Your task to perform on an android device: turn off notifications in google photos Image 0: 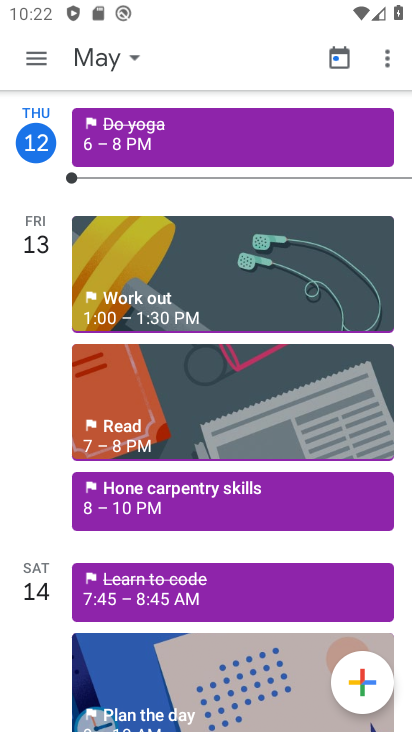
Step 0: press home button
Your task to perform on an android device: turn off notifications in google photos Image 1: 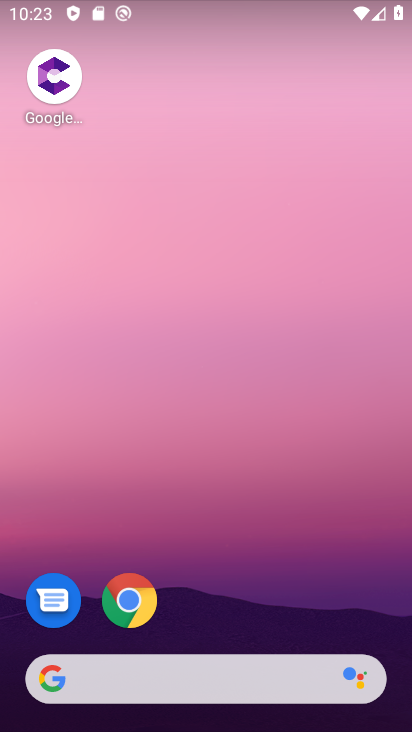
Step 1: click (265, 160)
Your task to perform on an android device: turn off notifications in google photos Image 2: 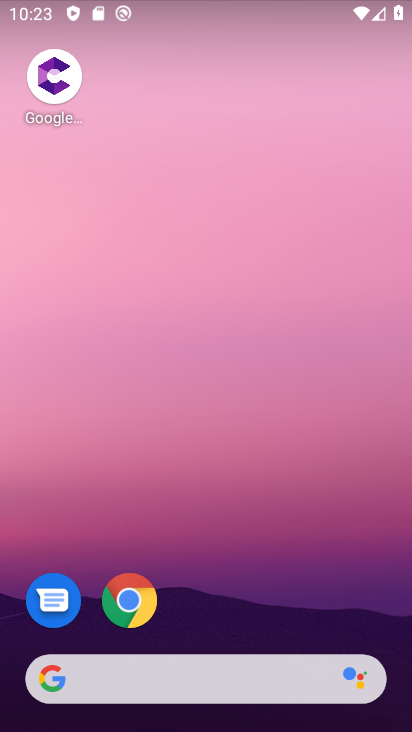
Step 2: drag from (200, 575) to (229, 146)
Your task to perform on an android device: turn off notifications in google photos Image 3: 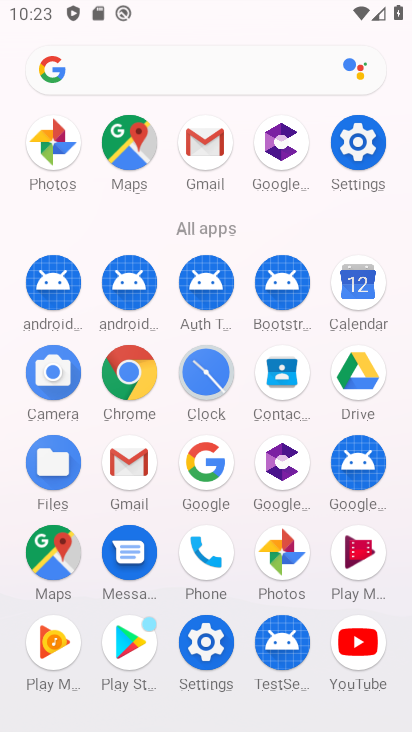
Step 3: click (289, 563)
Your task to perform on an android device: turn off notifications in google photos Image 4: 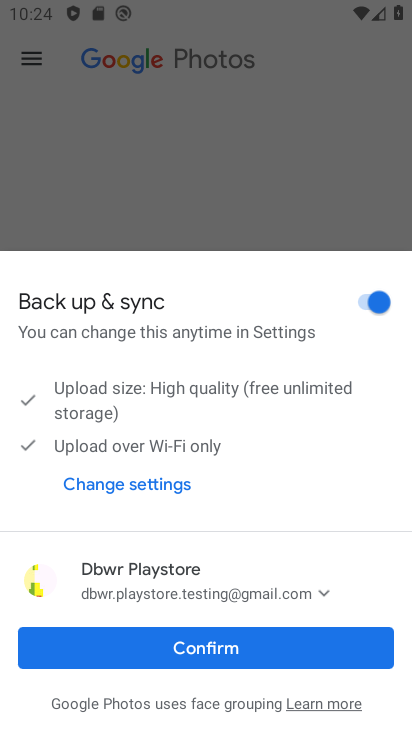
Step 4: click (184, 650)
Your task to perform on an android device: turn off notifications in google photos Image 5: 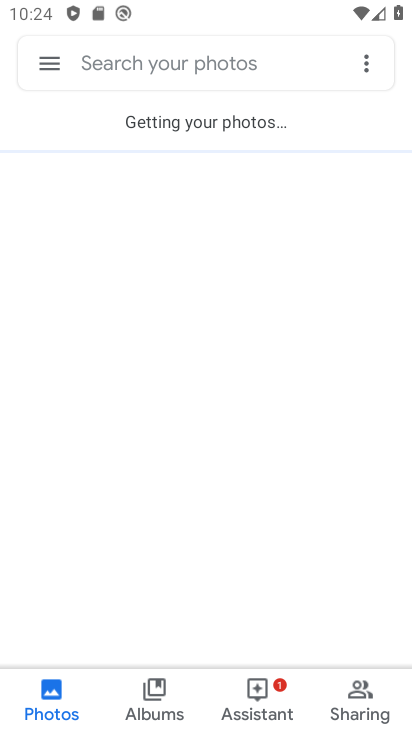
Step 5: click (39, 65)
Your task to perform on an android device: turn off notifications in google photos Image 6: 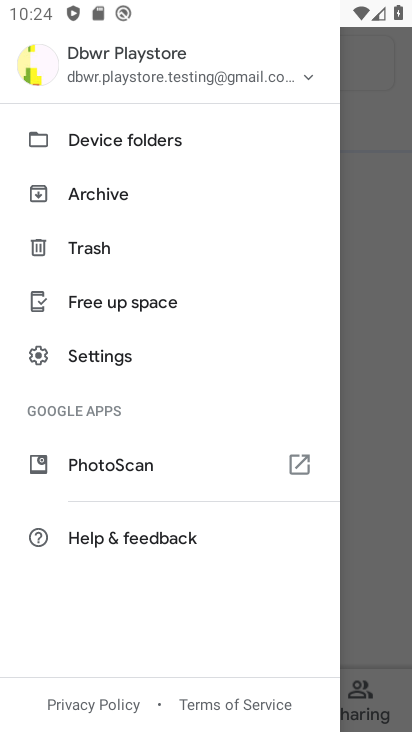
Step 6: click (107, 359)
Your task to perform on an android device: turn off notifications in google photos Image 7: 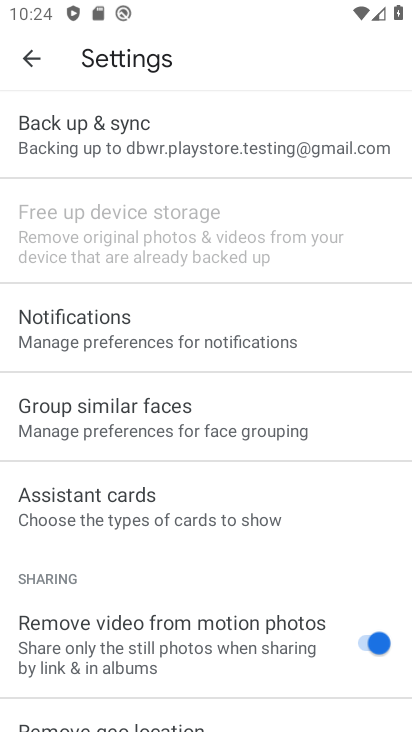
Step 7: click (117, 344)
Your task to perform on an android device: turn off notifications in google photos Image 8: 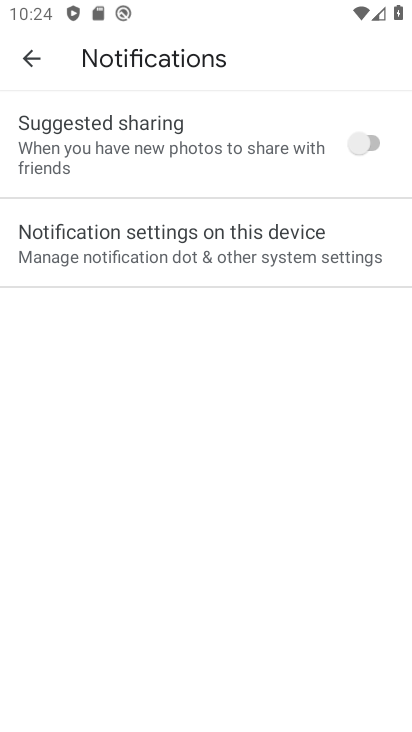
Step 8: click (236, 244)
Your task to perform on an android device: turn off notifications in google photos Image 9: 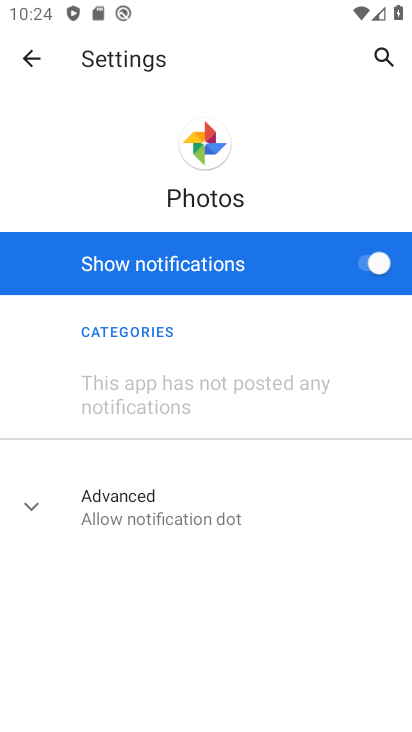
Step 9: click (372, 259)
Your task to perform on an android device: turn off notifications in google photos Image 10: 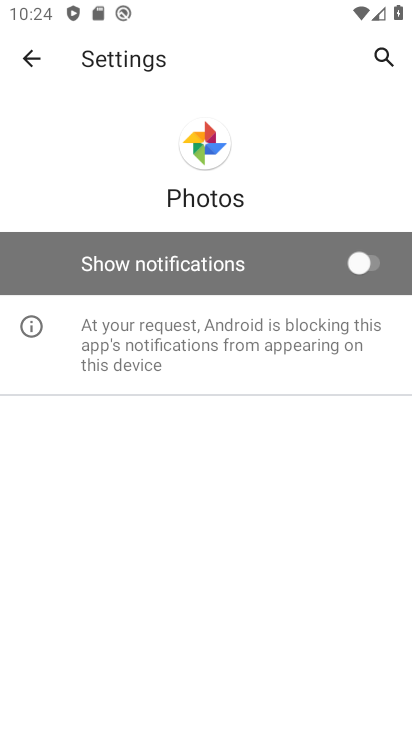
Step 10: task complete